Your task to perform on an android device: Go to Maps Image 0: 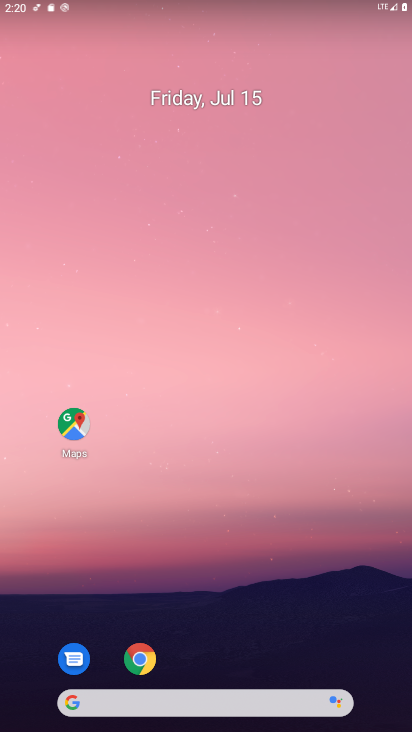
Step 0: press home button
Your task to perform on an android device: Go to Maps Image 1: 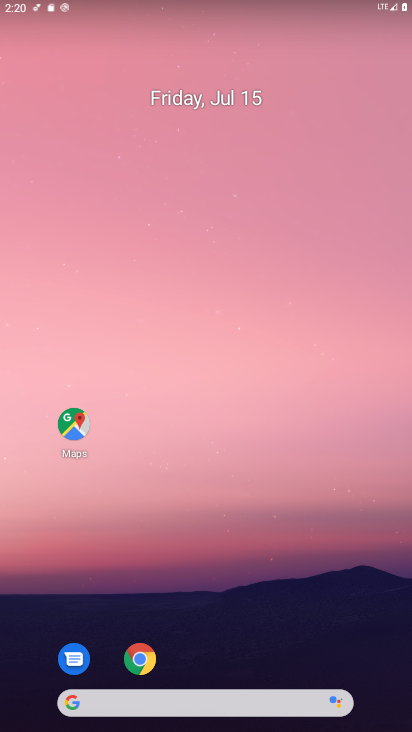
Step 1: click (70, 425)
Your task to perform on an android device: Go to Maps Image 2: 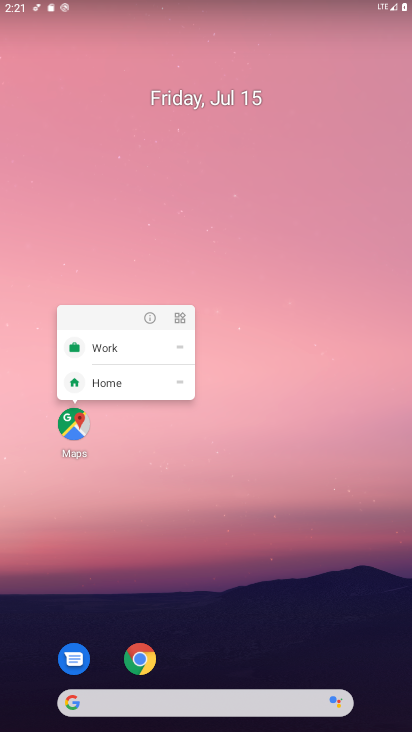
Step 2: click (72, 433)
Your task to perform on an android device: Go to Maps Image 3: 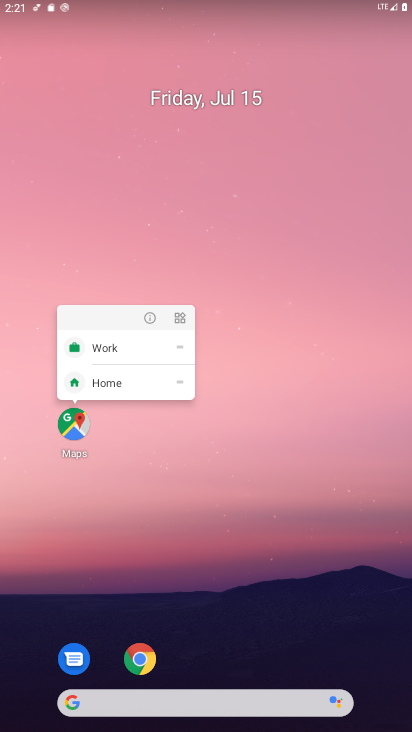
Step 3: click (72, 433)
Your task to perform on an android device: Go to Maps Image 4: 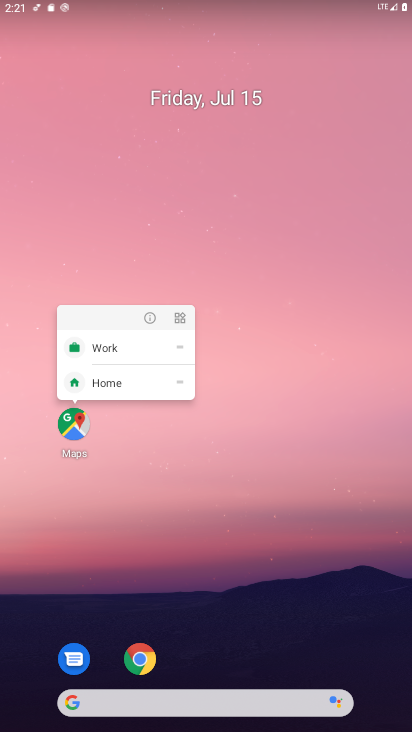
Step 4: click (77, 429)
Your task to perform on an android device: Go to Maps Image 5: 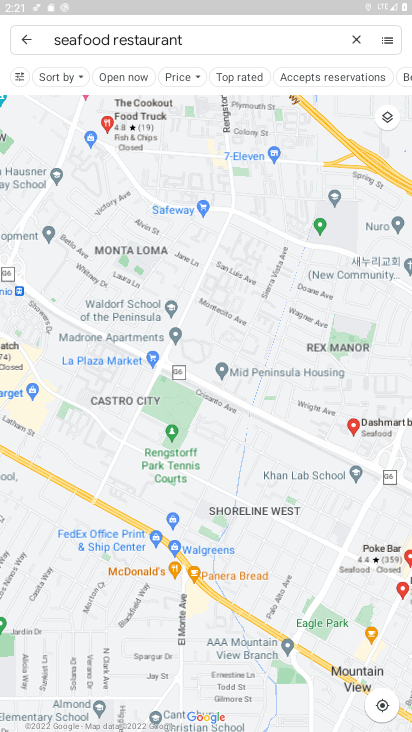
Step 5: task complete